Your task to perform on an android device: Open Youtube and go to the subscriptions tab Image 0: 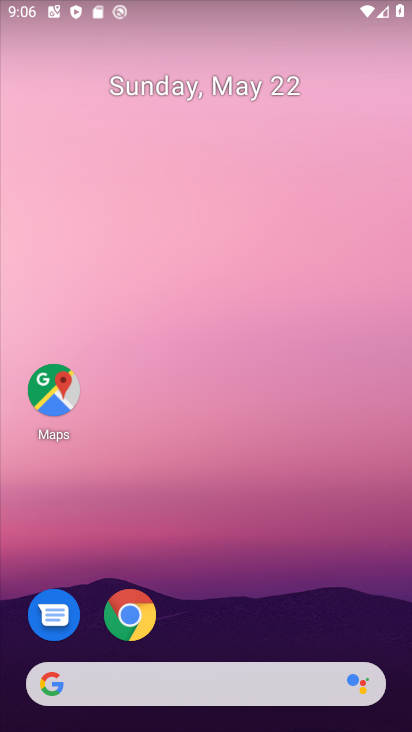
Step 0: drag from (257, 580) to (260, 265)
Your task to perform on an android device: Open Youtube and go to the subscriptions tab Image 1: 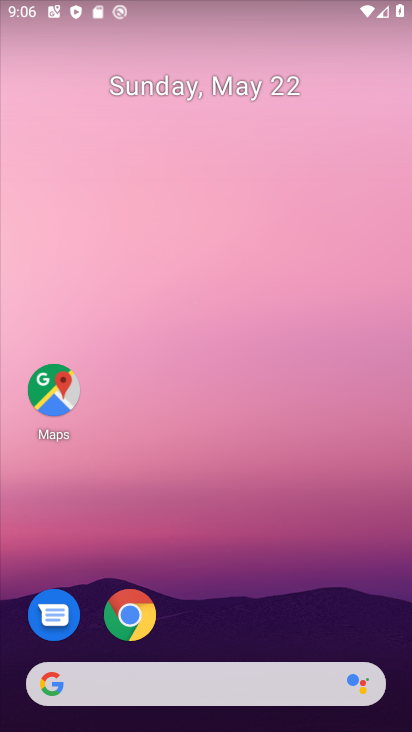
Step 1: drag from (273, 651) to (255, 303)
Your task to perform on an android device: Open Youtube and go to the subscriptions tab Image 2: 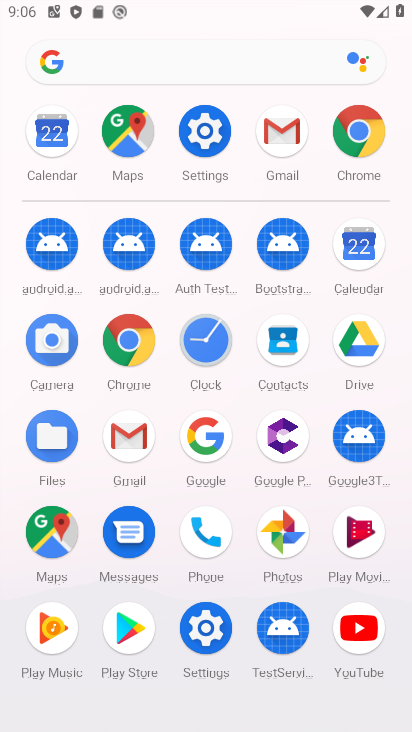
Step 2: click (362, 623)
Your task to perform on an android device: Open Youtube and go to the subscriptions tab Image 3: 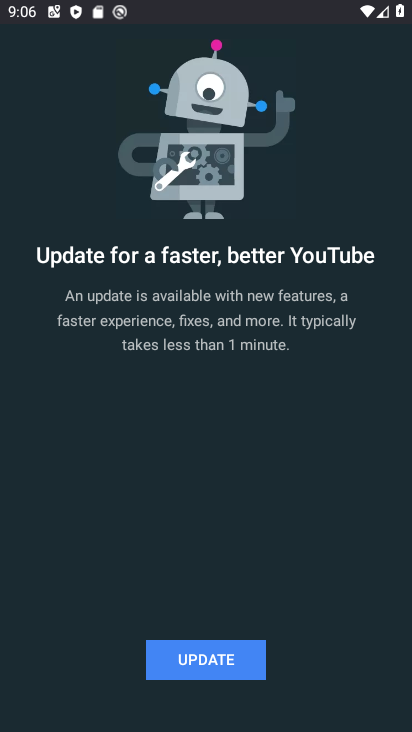
Step 3: task complete